Your task to perform on an android device: turn on sleep mode Image 0: 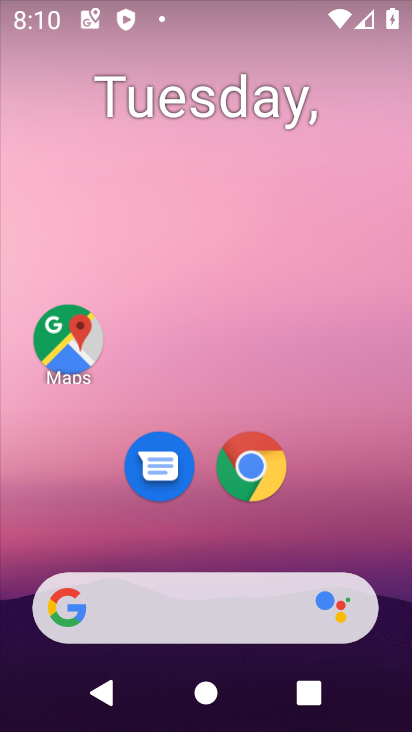
Step 0: drag from (378, 544) to (310, 21)
Your task to perform on an android device: turn on sleep mode Image 1: 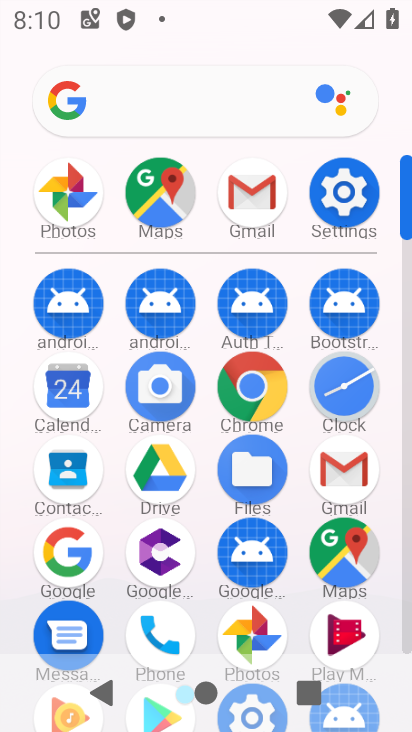
Step 1: click (356, 184)
Your task to perform on an android device: turn on sleep mode Image 2: 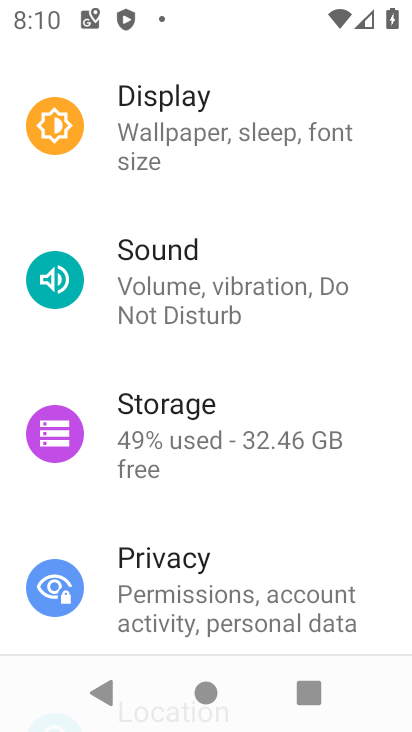
Step 2: click (265, 173)
Your task to perform on an android device: turn on sleep mode Image 3: 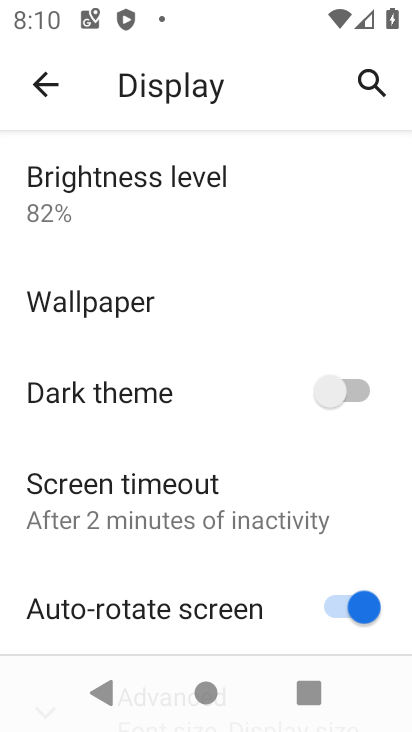
Step 3: drag from (226, 491) to (231, 308)
Your task to perform on an android device: turn on sleep mode Image 4: 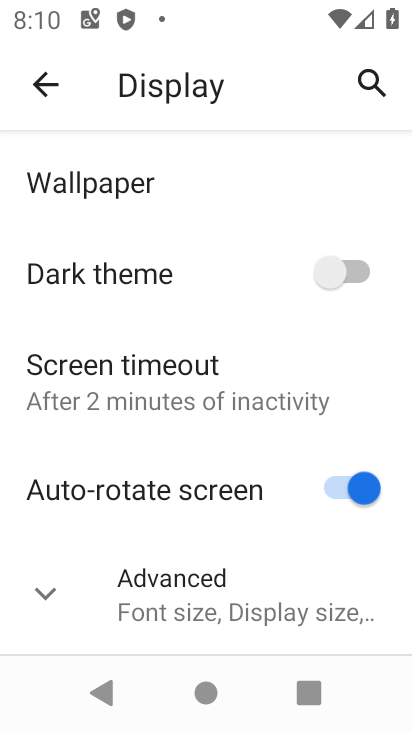
Step 4: click (187, 580)
Your task to perform on an android device: turn on sleep mode Image 5: 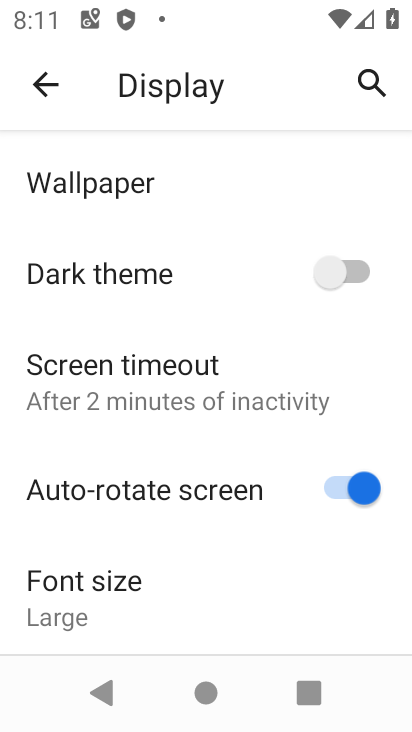
Step 5: click (50, 86)
Your task to perform on an android device: turn on sleep mode Image 6: 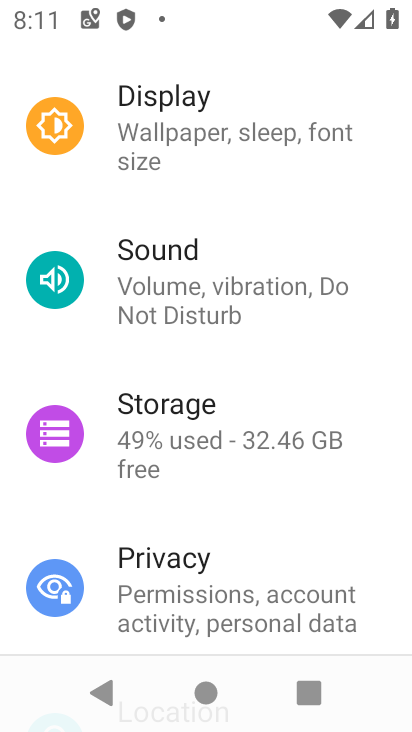
Step 6: click (232, 130)
Your task to perform on an android device: turn on sleep mode Image 7: 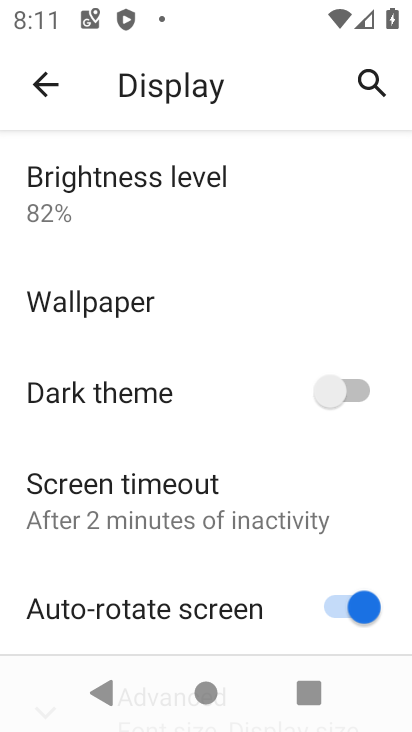
Step 7: drag from (170, 431) to (143, 63)
Your task to perform on an android device: turn on sleep mode Image 8: 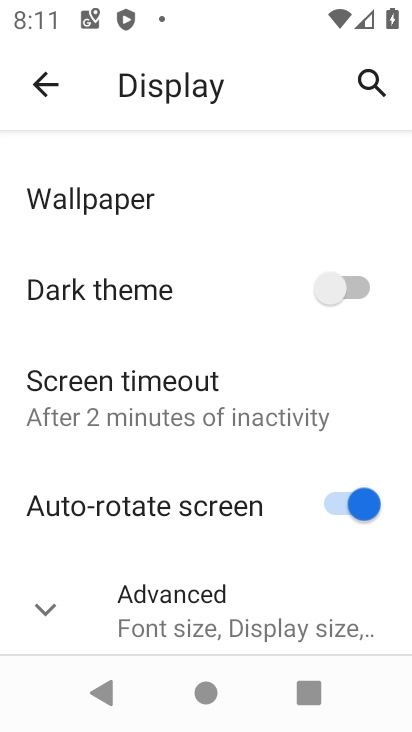
Step 8: click (209, 393)
Your task to perform on an android device: turn on sleep mode Image 9: 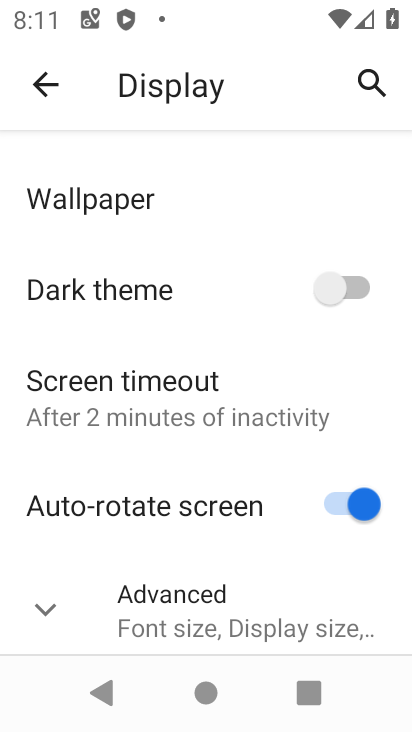
Step 9: click (209, 393)
Your task to perform on an android device: turn on sleep mode Image 10: 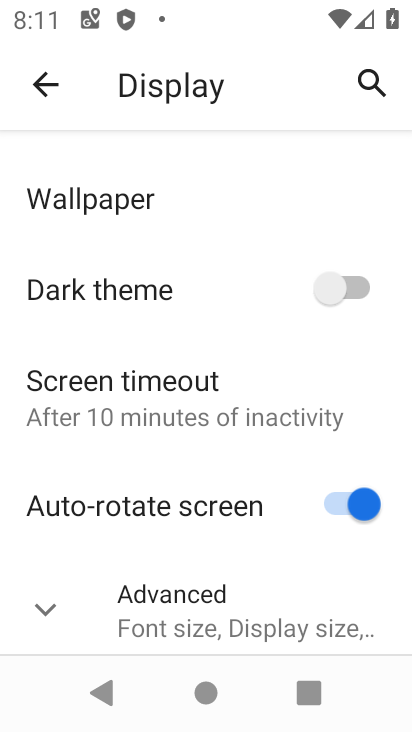
Step 10: task complete